Your task to perform on an android device: Open Yahoo.com Image 0: 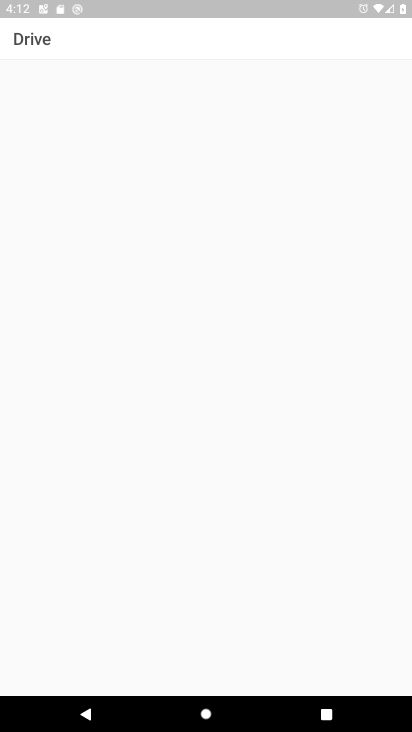
Step 0: press home button
Your task to perform on an android device: Open Yahoo.com Image 1: 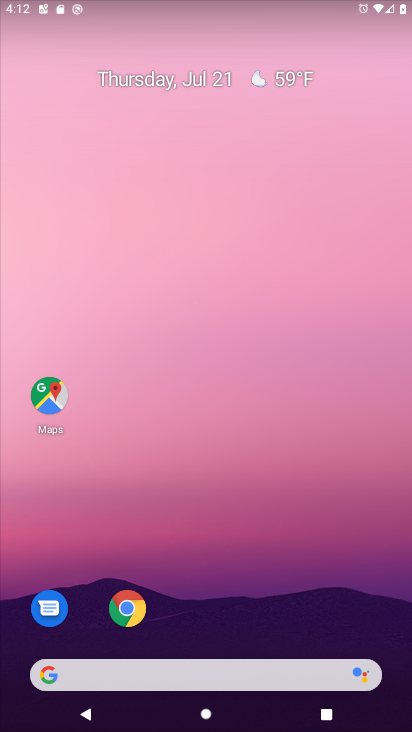
Step 1: drag from (352, 524) to (382, 7)
Your task to perform on an android device: Open Yahoo.com Image 2: 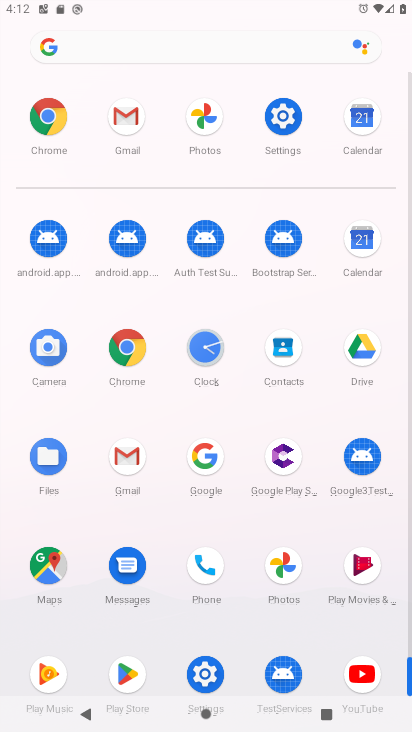
Step 2: click (129, 353)
Your task to perform on an android device: Open Yahoo.com Image 3: 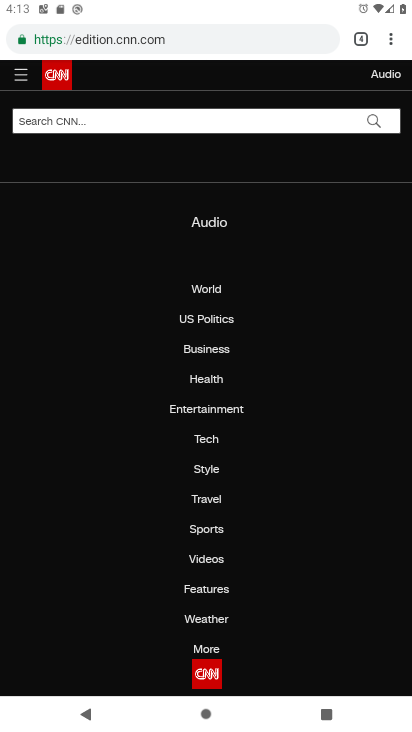
Step 3: click (248, 46)
Your task to perform on an android device: Open Yahoo.com Image 4: 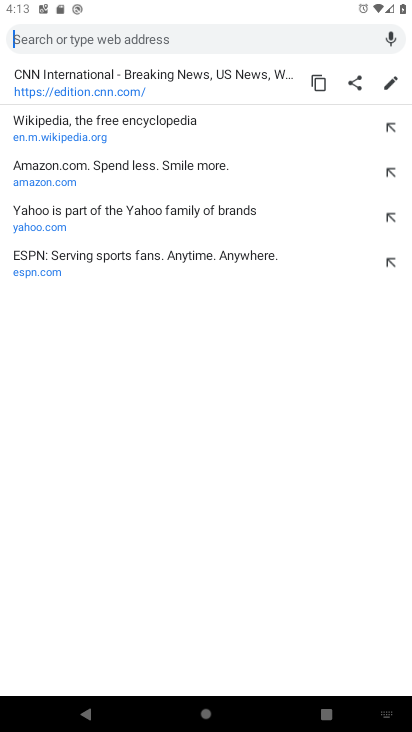
Step 4: type "yahoo.com"
Your task to perform on an android device: Open Yahoo.com Image 5: 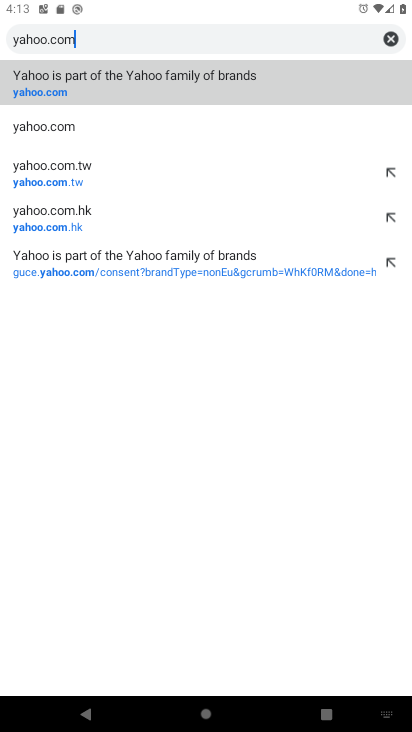
Step 5: click (309, 85)
Your task to perform on an android device: Open Yahoo.com Image 6: 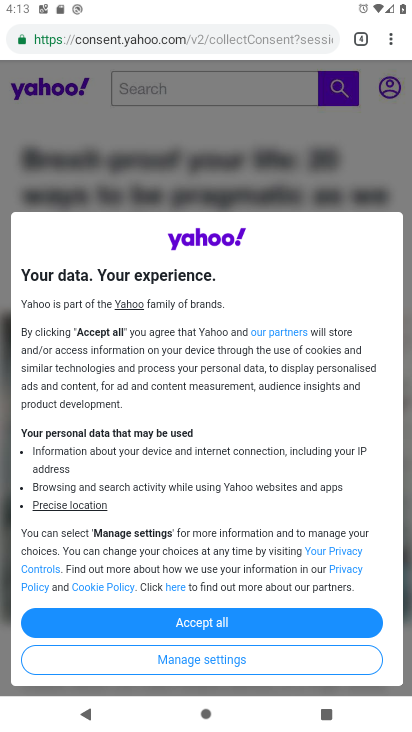
Step 6: task complete